Your task to perform on an android device: install app "Google Duo" Image 0: 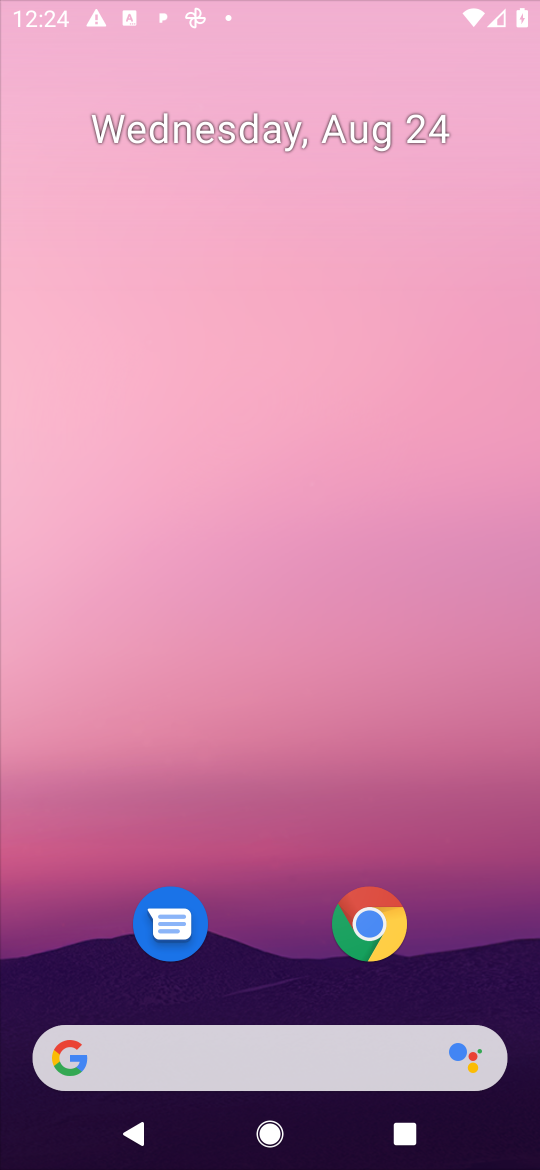
Step 0: press home button
Your task to perform on an android device: install app "Google Duo" Image 1: 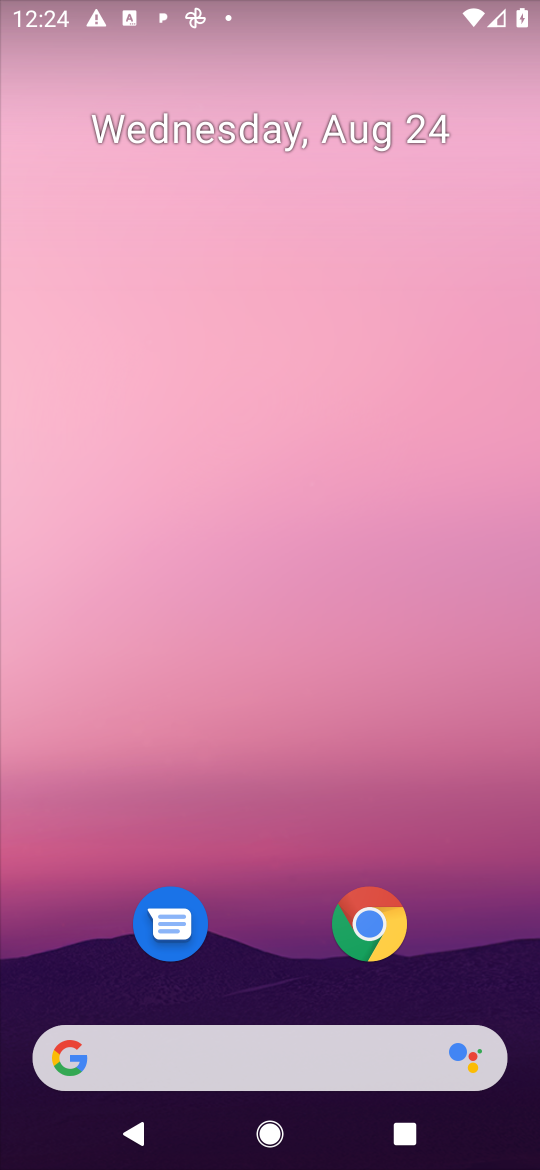
Step 1: drag from (482, 942) to (525, 246)
Your task to perform on an android device: install app "Google Duo" Image 2: 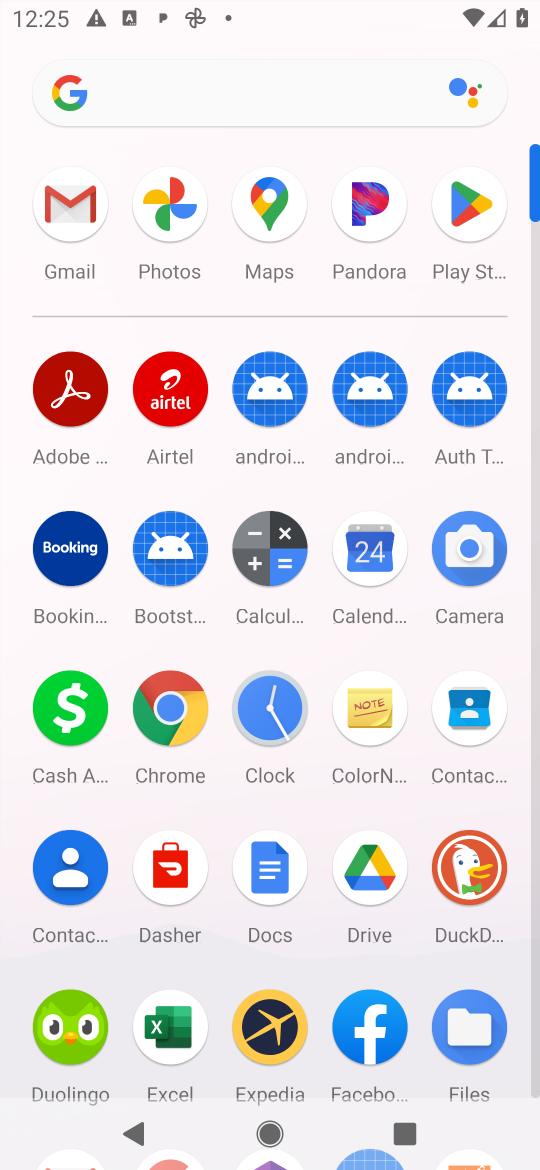
Step 2: click (461, 216)
Your task to perform on an android device: install app "Google Duo" Image 3: 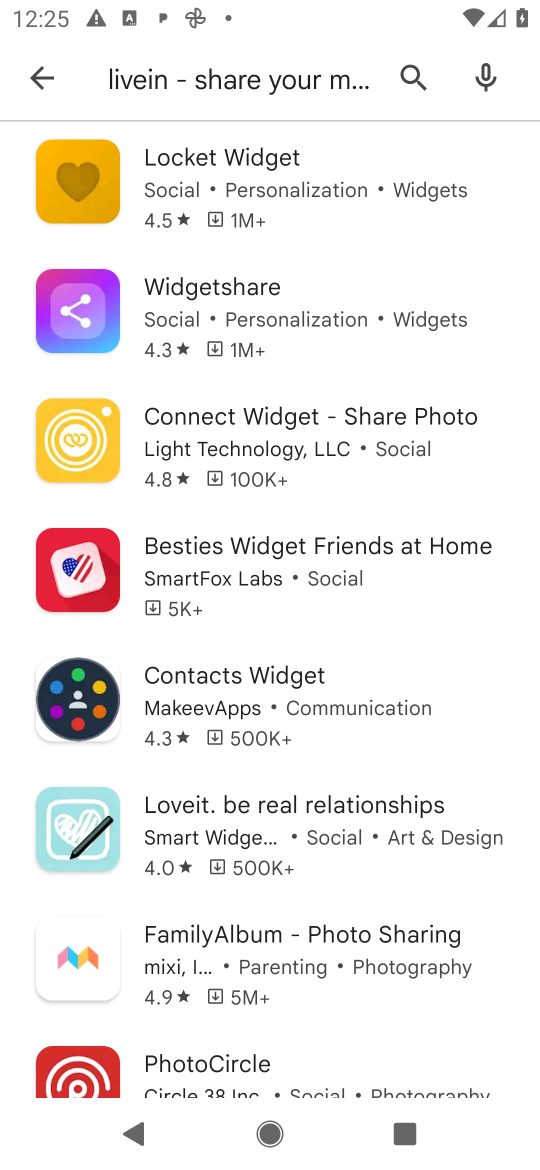
Step 3: press back button
Your task to perform on an android device: install app "Google Duo" Image 4: 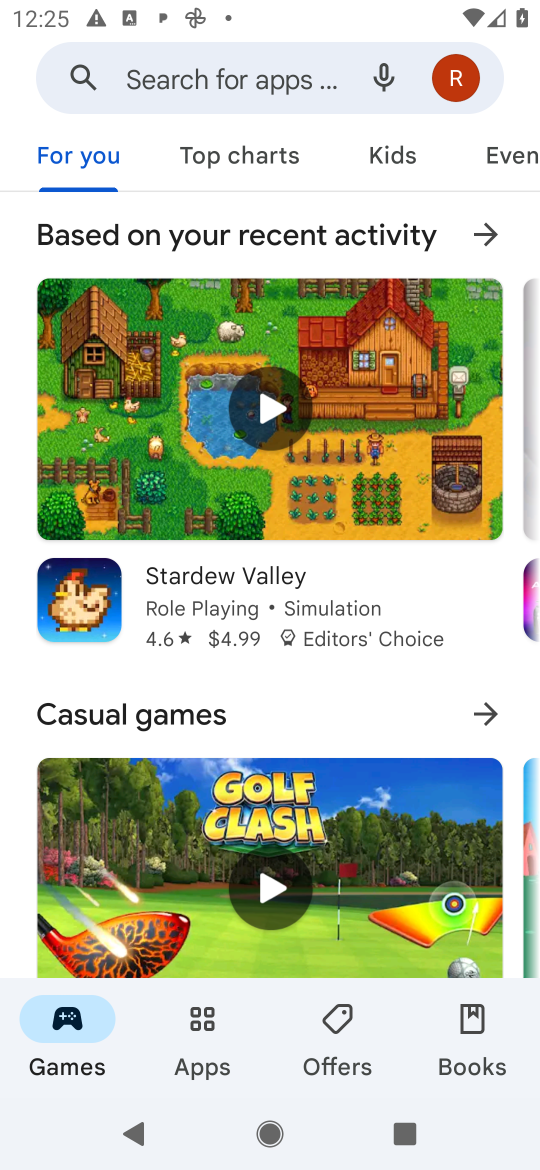
Step 4: click (272, 72)
Your task to perform on an android device: install app "Google Duo" Image 5: 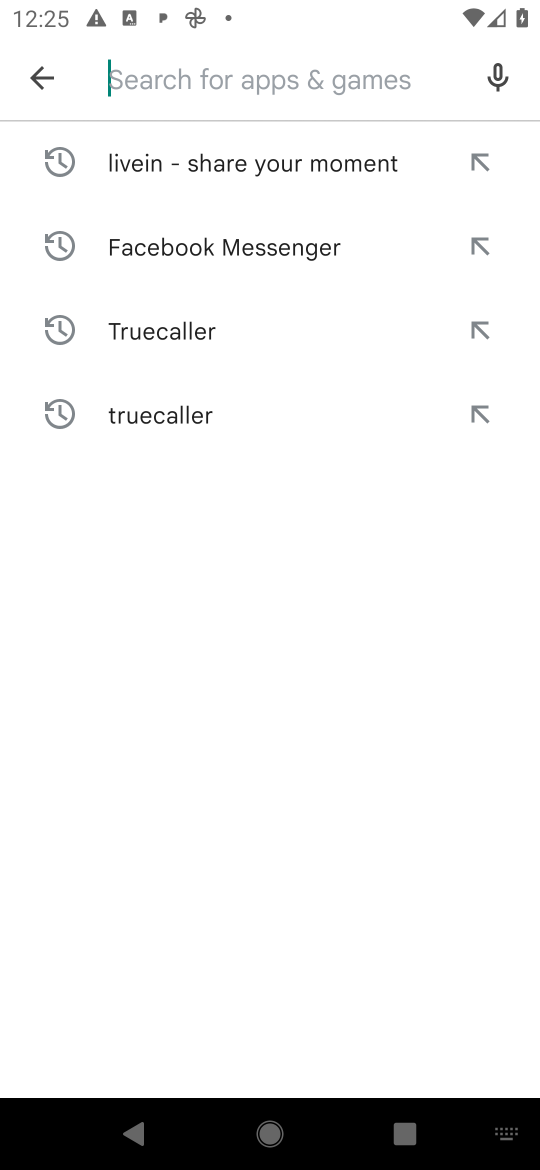
Step 5: type "google duo"
Your task to perform on an android device: install app "Google Duo" Image 6: 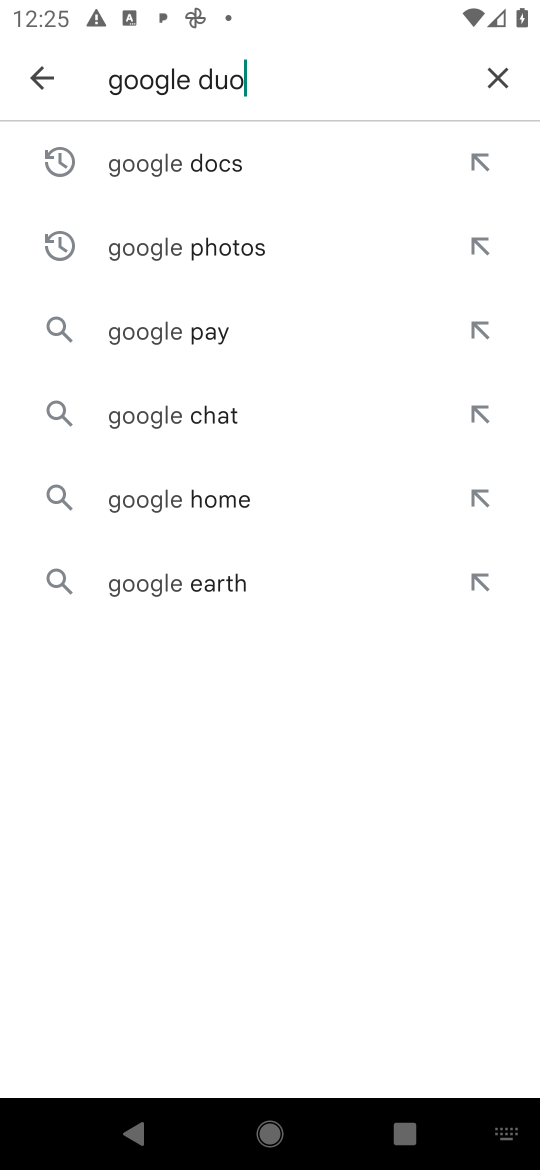
Step 6: press enter
Your task to perform on an android device: install app "Google Duo" Image 7: 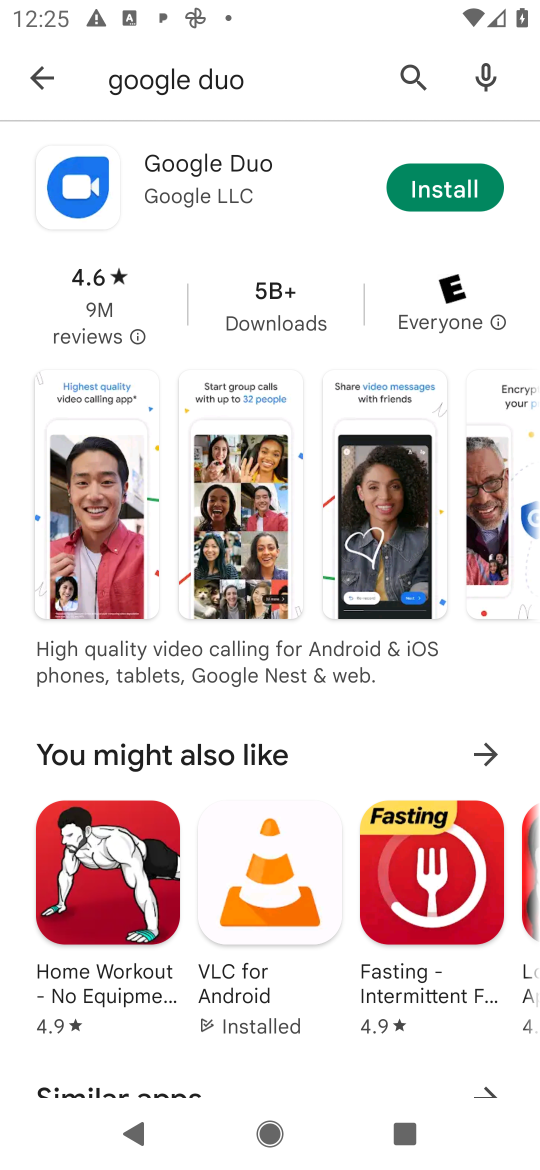
Step 7: click (443, 184)
Your task to perform on an android device: install app "Google Duo" Image 8: 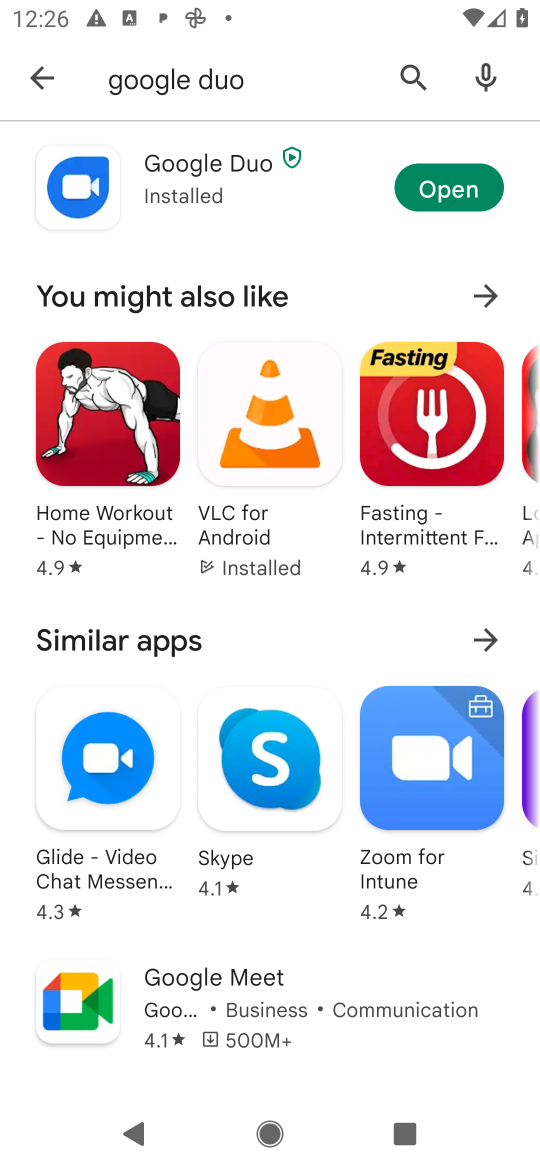
Step 8: task complete